Your task to perform on an android device: install app "Pinterest" Image 0: 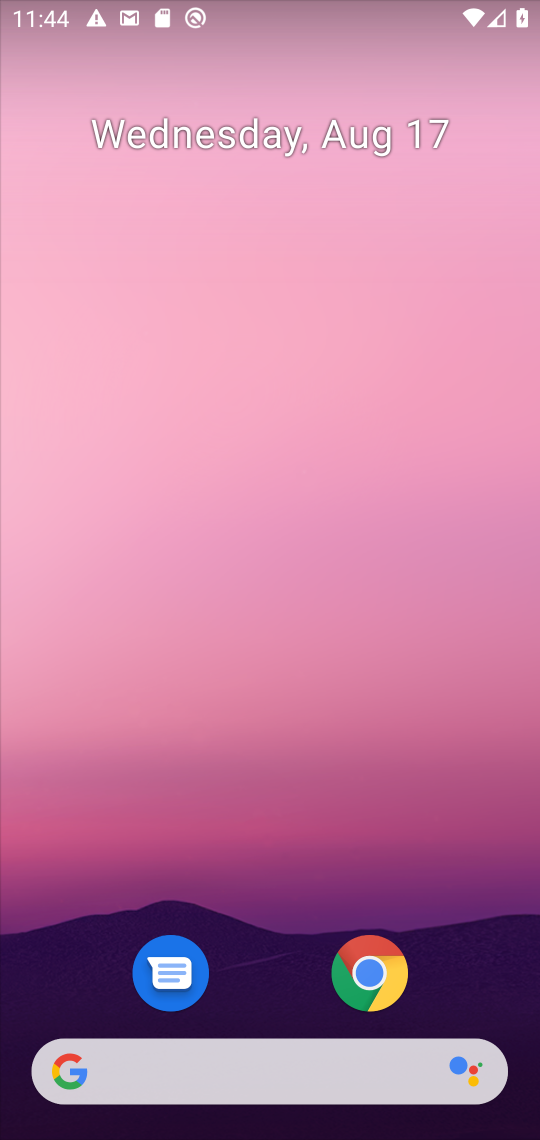
Step 0: drag from (259, 1010) to (259, 99)
Your task to perform on an android device: install app "Pinterest" Image 1: 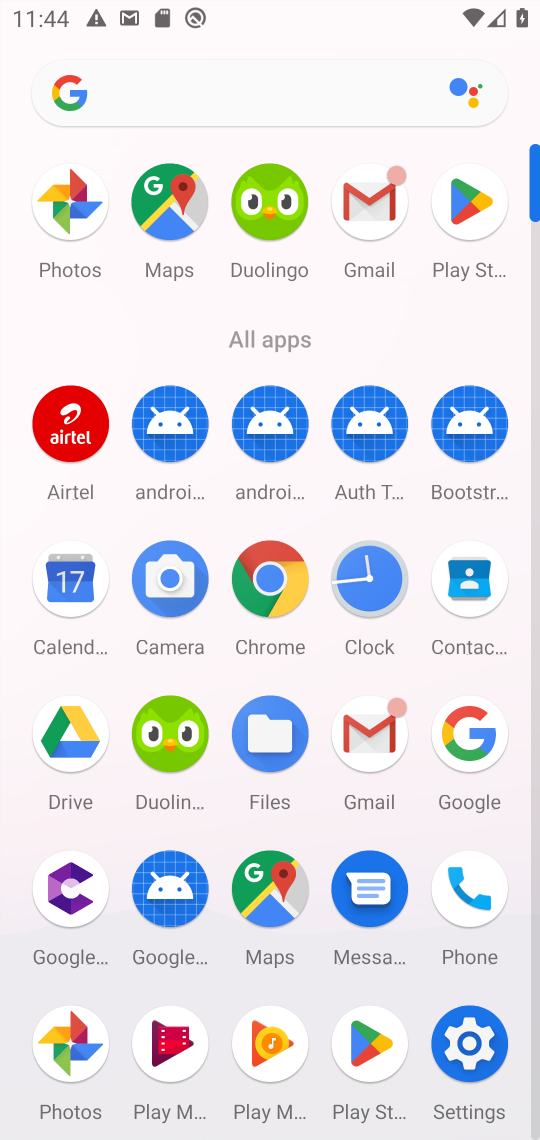
Step 1: click (376, 1027)
Your task to perform on an android device: install app "Pinterest" Image 2: 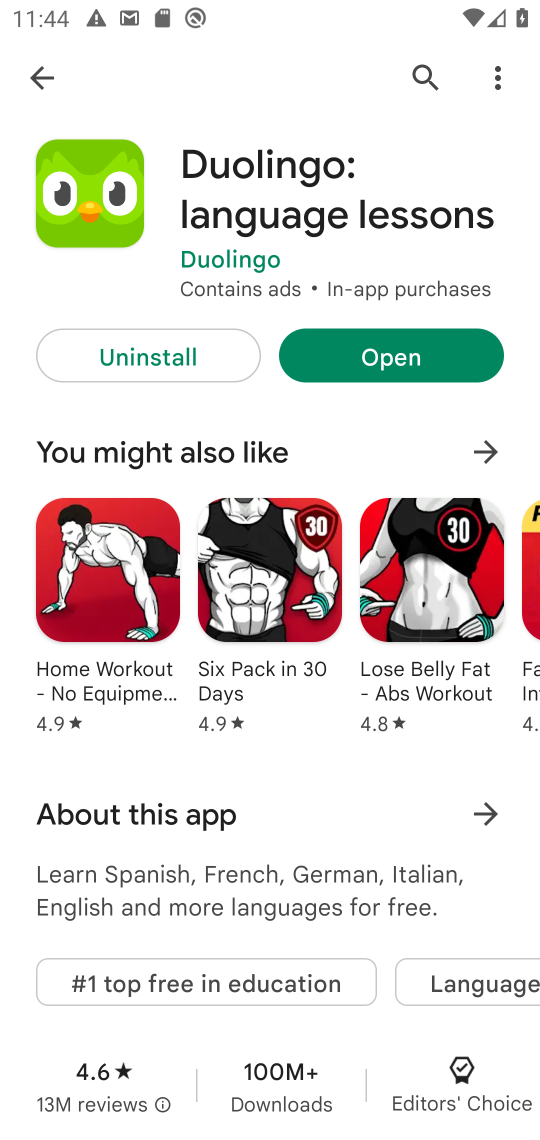
Step 2: click (416, 66)
Your task to perform on an android device: install app "Pinterest" Image 3: 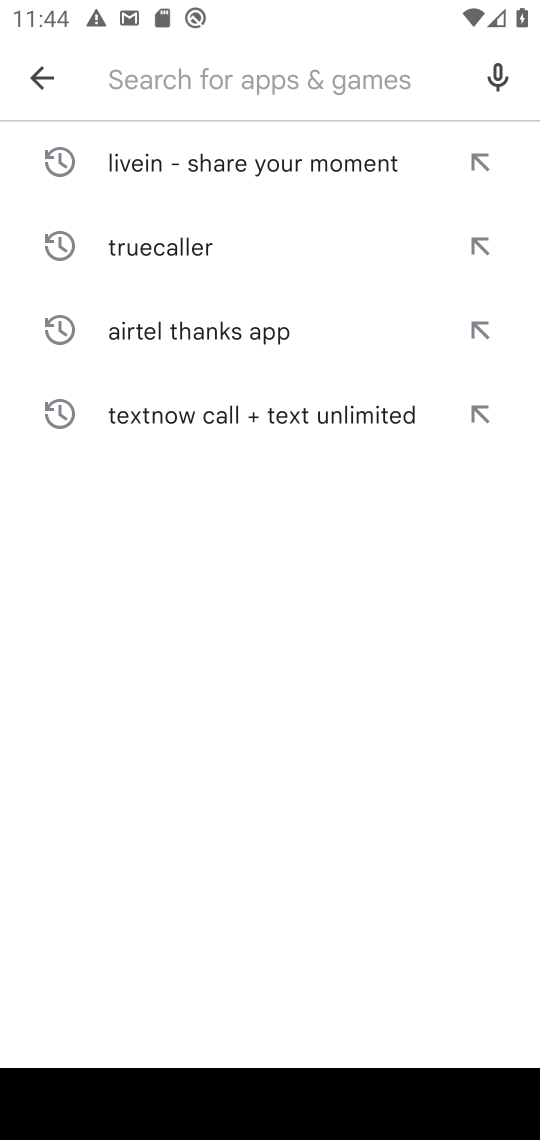
Step 3: type "Printrest"
Your task to perform on an android device: install app "Pinterest" Image 4: 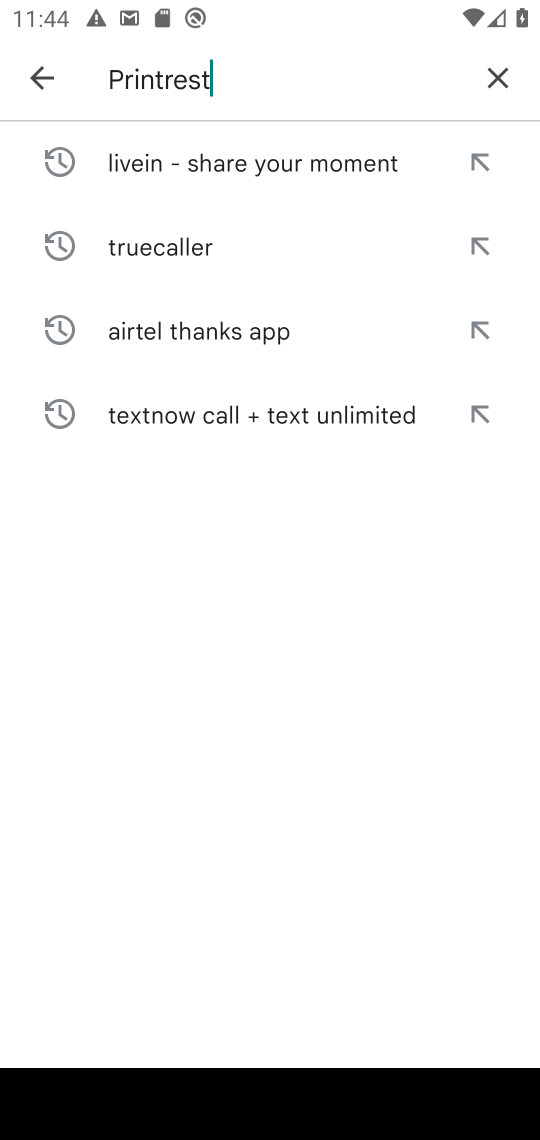
Step 4: type ""
Your task to perform on an android device: install app "Pinterest" Image 5: 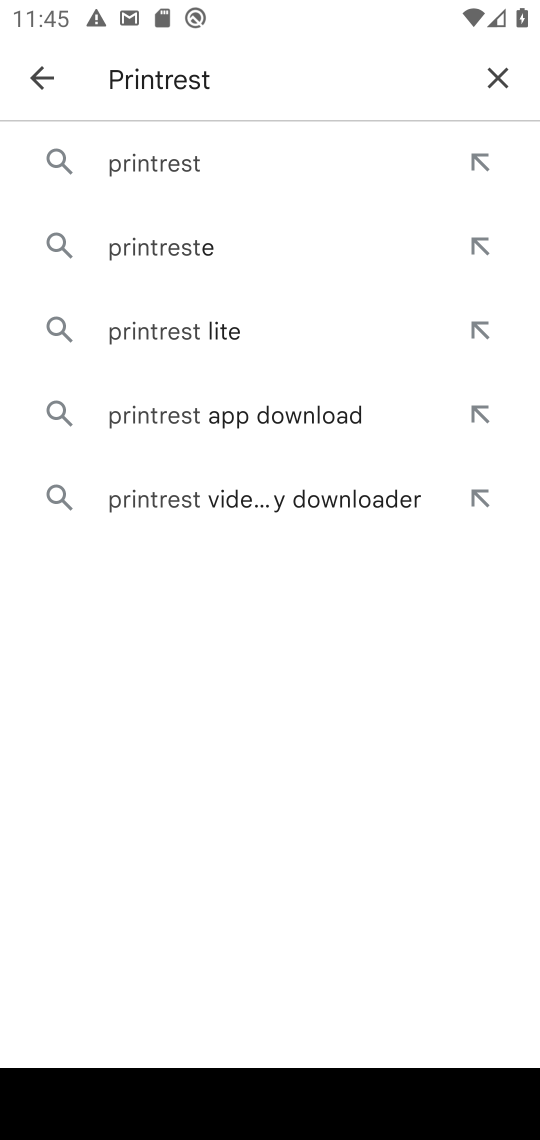
Step 5: click (134, 164)
Your task to perform on an android device: install app "Pinterest" Image 6: 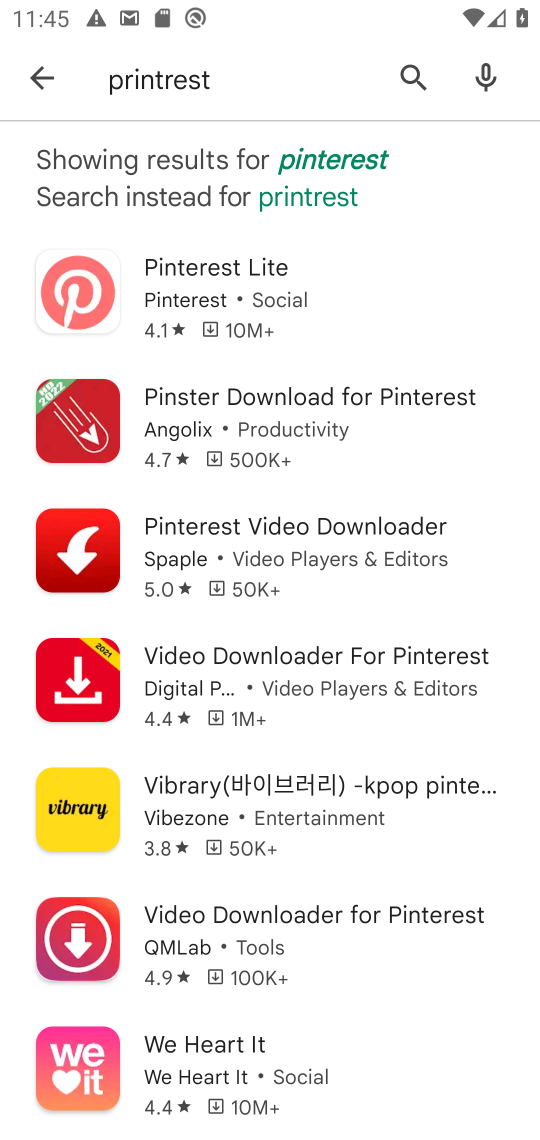
Step 6: click (328, 158)
Your task to perform on an android device: install app "Pinterest" Image 7: 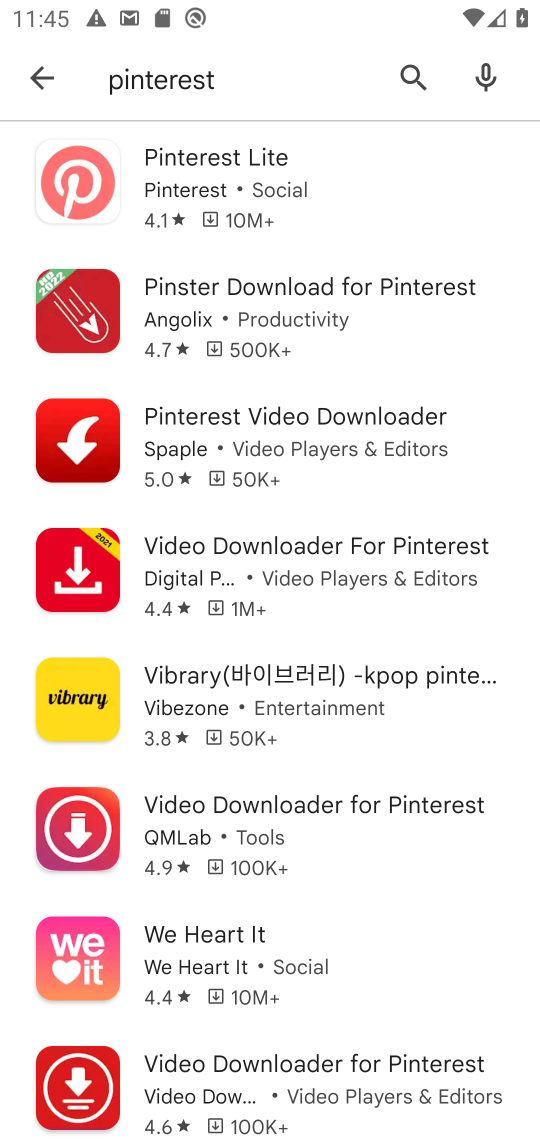
Step 7: click (237, 160)
Your task to perform on an android device: install app "Pinterest" Image 8: 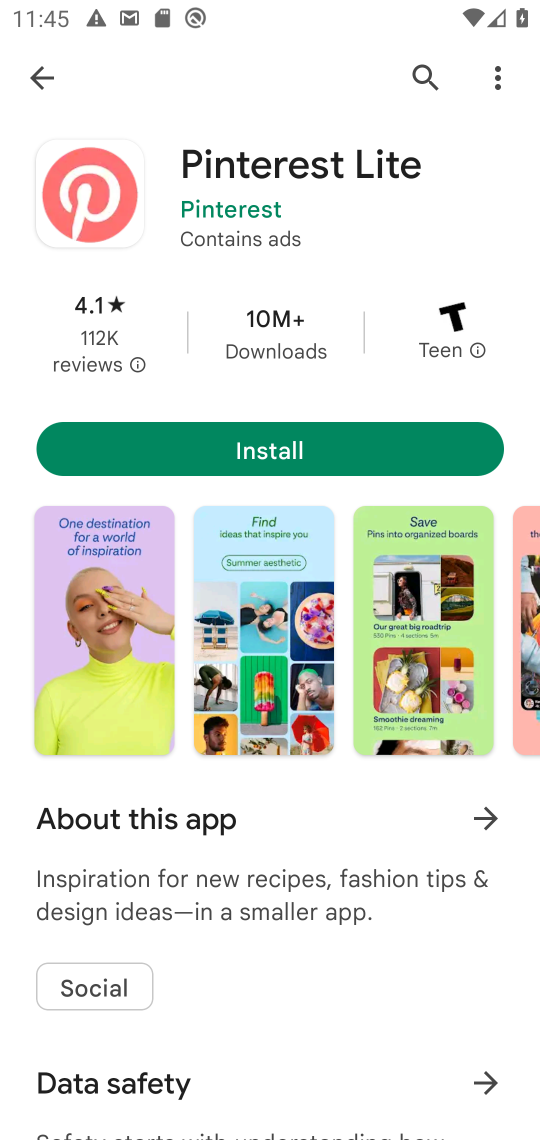
Step 8: click (263, 455)
Your task to perform on an android device: install app "Pinterest" Image 9: 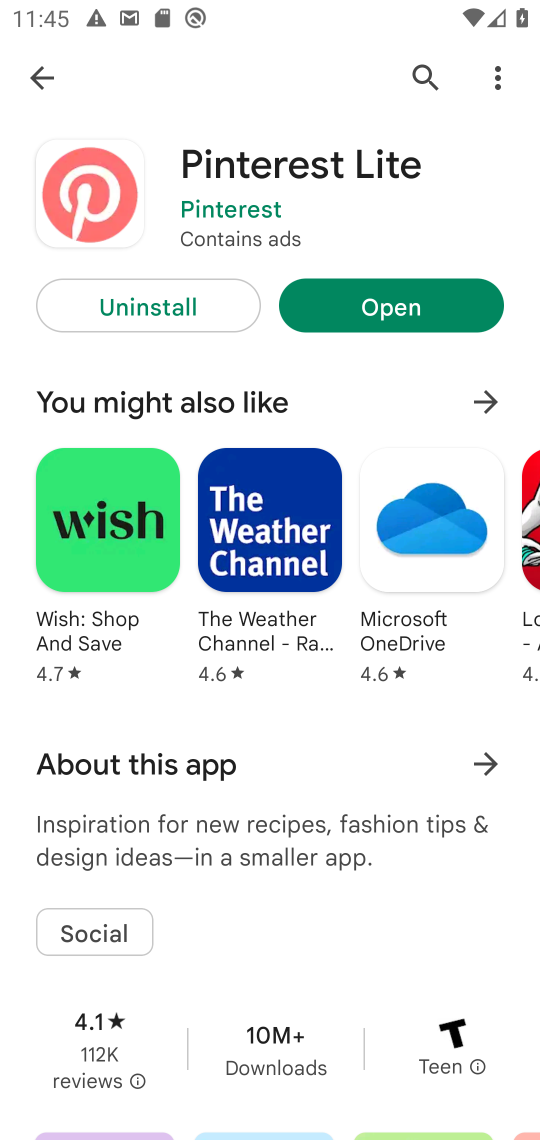
Step 9: task complete